Your task to perform on an android device: show emergency info Image 0: 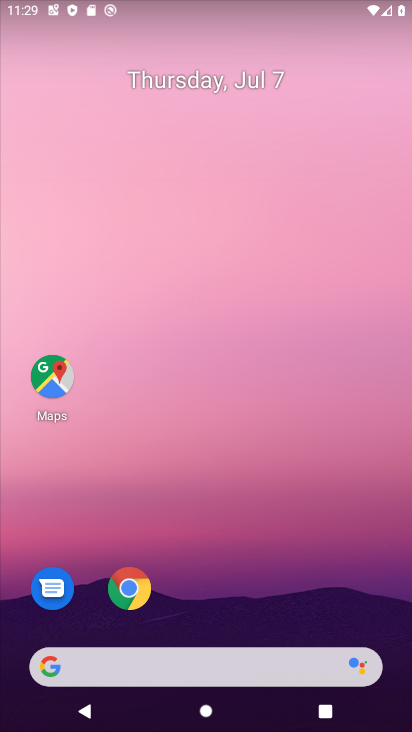
Step 0: drag from (251, 489) to (175, 17)
Your task to perform on an android device: show emergency info Image 1: 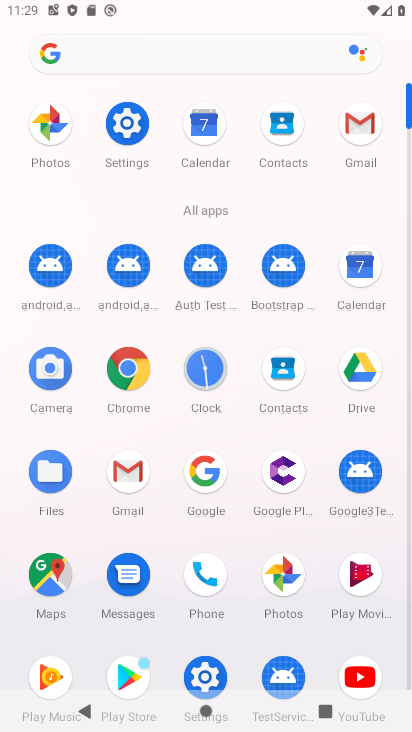
Step 1: click (125, 122)
Your task to perform on an android device: show emergency info Image 2: 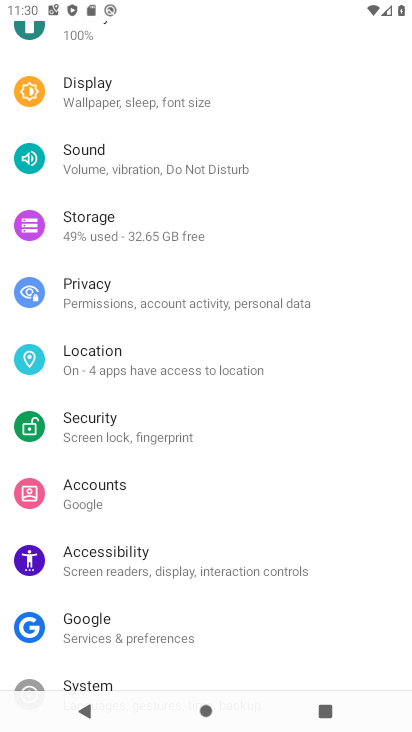
Step 2: drag from (167, 547) to (137, 250)
Your task to perform on an android device: show emergency info Image 3: 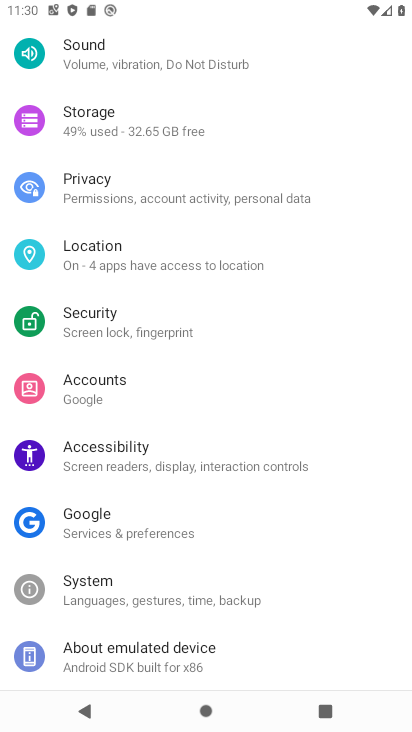
Step 3: click (125, 652)
Your task to perform on an android device: show emergency info Image 4: 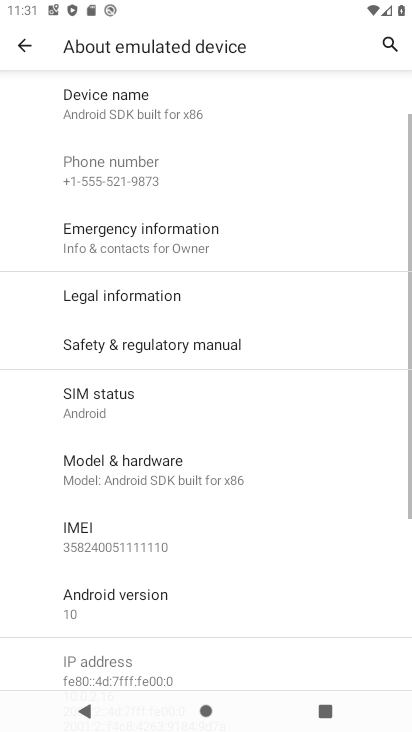
Step 4: click (130, 223)
Your task to perform on an android device: show emergency info Image 5: 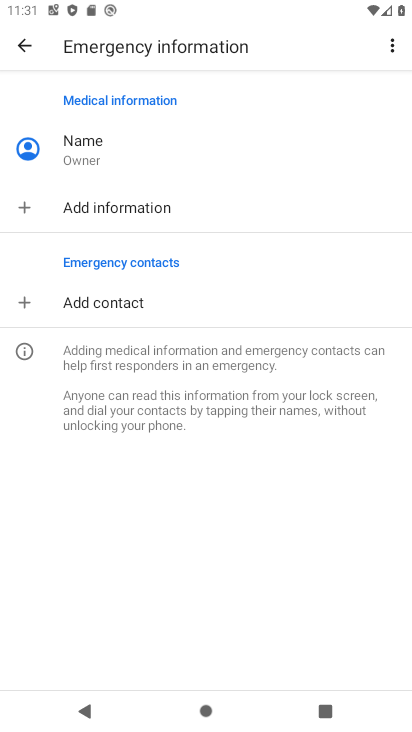
Step 5: task complete